Your task to perform on an android device: Is it going to rain this weekend? Image 0: 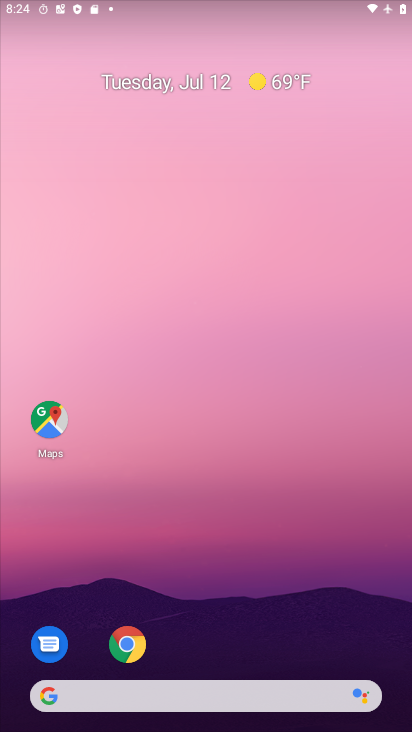
Step 0: drag from (259, 207) to (268, 89)
Your task to perform on an android device: Is it going to rain this weekend? Image 1: 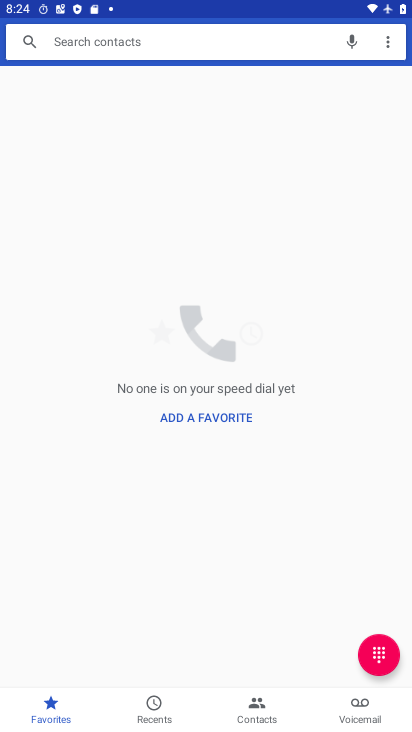
Step 1: press home button
Your task to perform on an android device: Is it going to rain this weekend? Image 2: 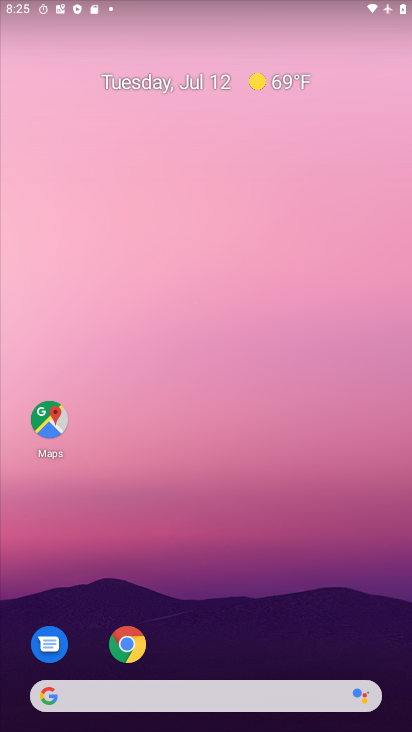
Step 2: click (199, 684)
Your task to perform on an android device: Is it going to rain this weekend? Image 3: 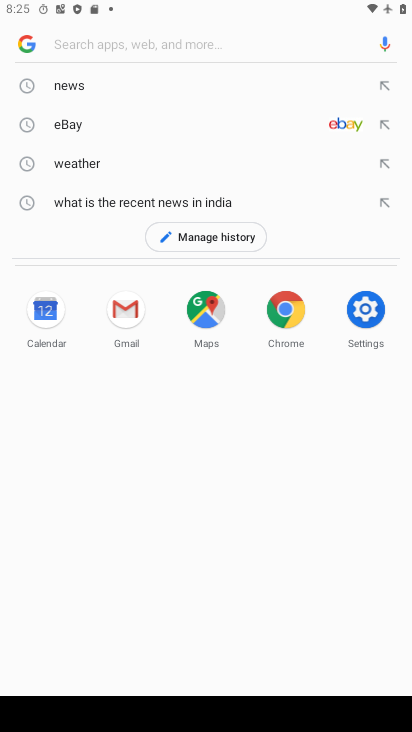
Step 3: click (107, 160)
Your task to perform on an android device: Is it going to rain this weekend? Image 4: 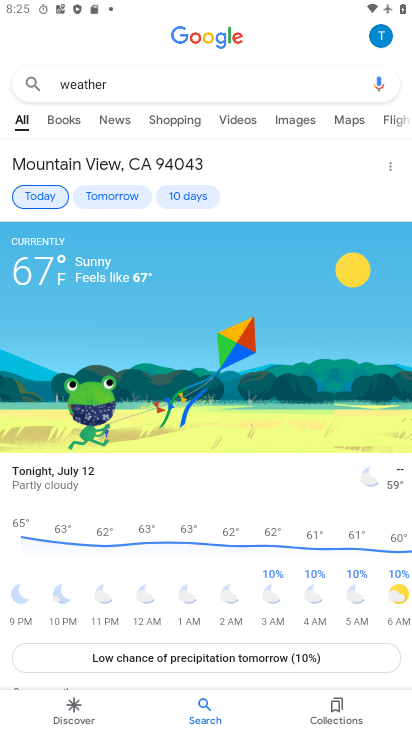
Step 4: click (113, 196)
Your task to perform on an android device: Is it going to rain this weekend? Image 5: 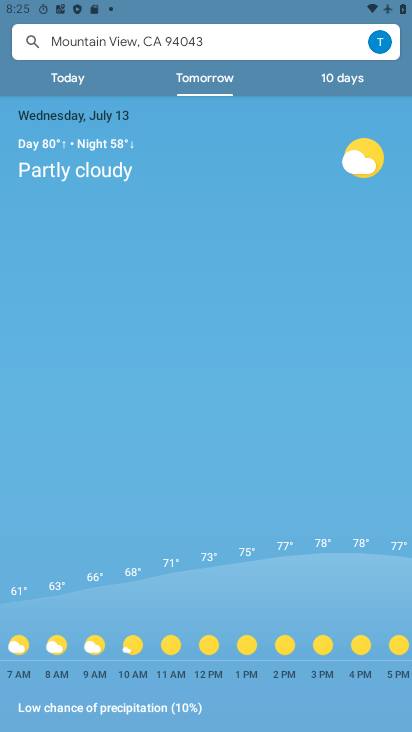
Step 5: click (346, 84)
Your task to perform on an android device: Is it going to rain this weekend? Image 6: 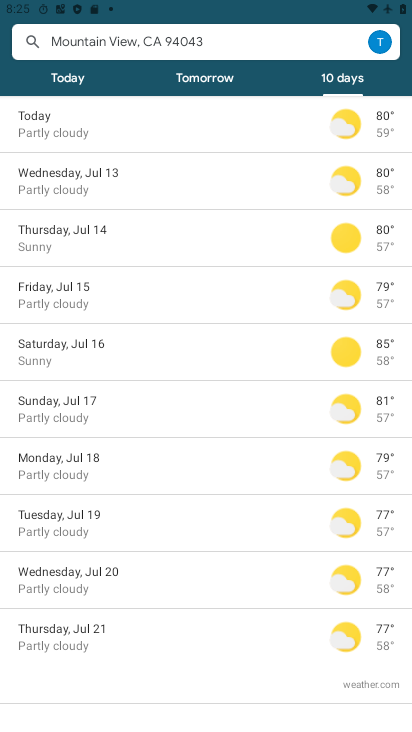
Step 6: task complete